Your task to perform on an android device: What's the news in Myanmar? Image 0: 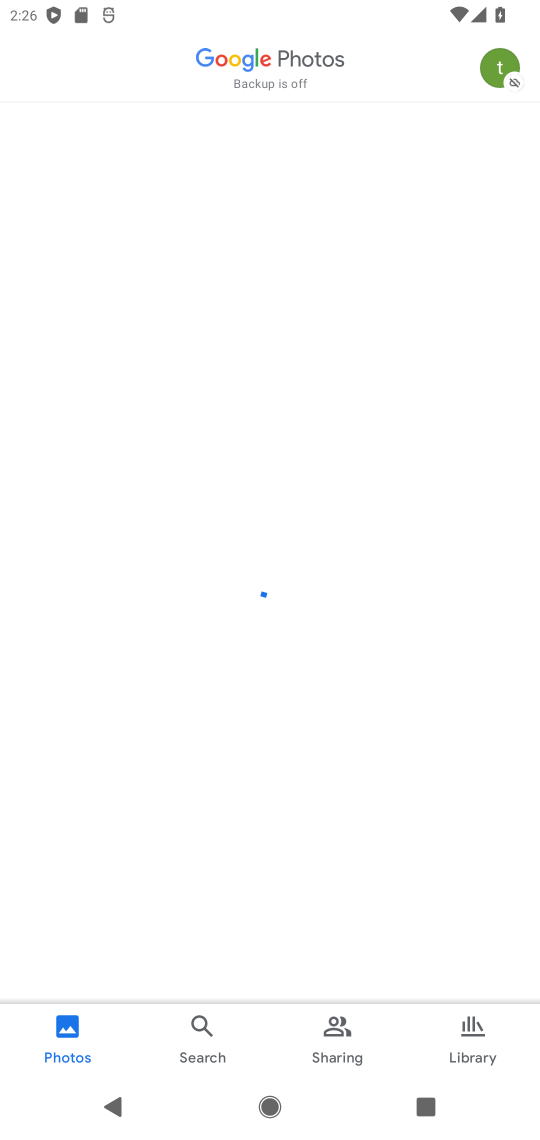
Step 0: press home button
Your task to perform on an android device: What's the news in Myanmar? Image 1: 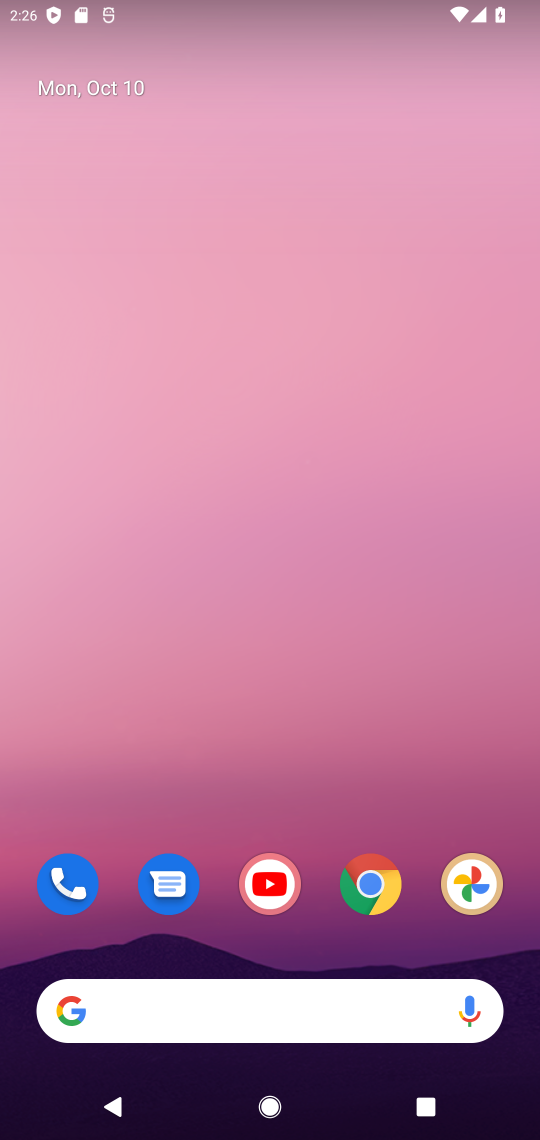
Step 1: click (322, 1021)
Your task to perform on an android device: What's the news in Myanmar? Image 2: 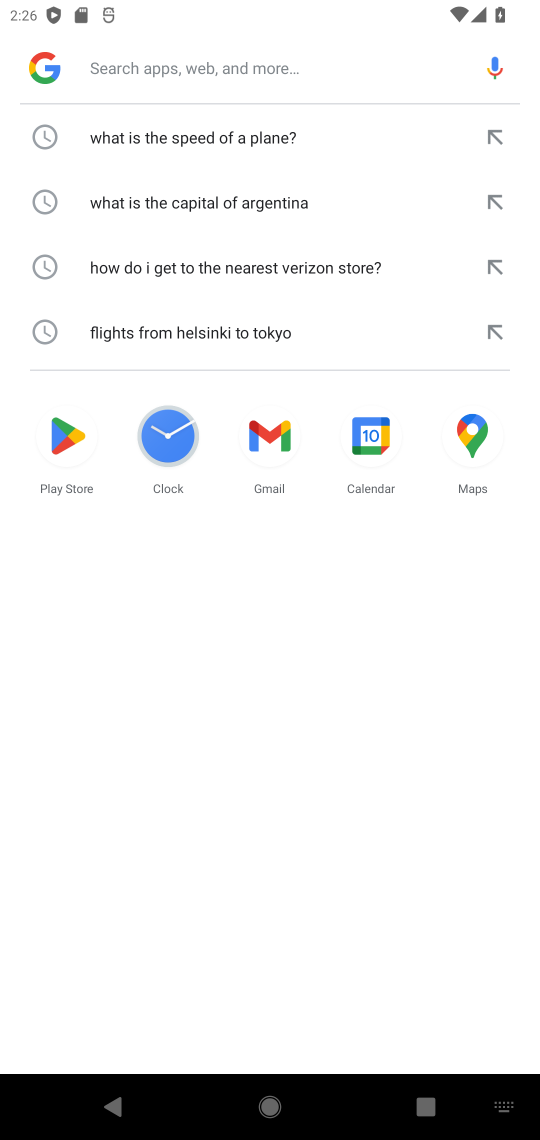
Step 2: type "What's the news in Myanmar"
Your task to perform on an android device: What's the news in Myanmar? Image 3: 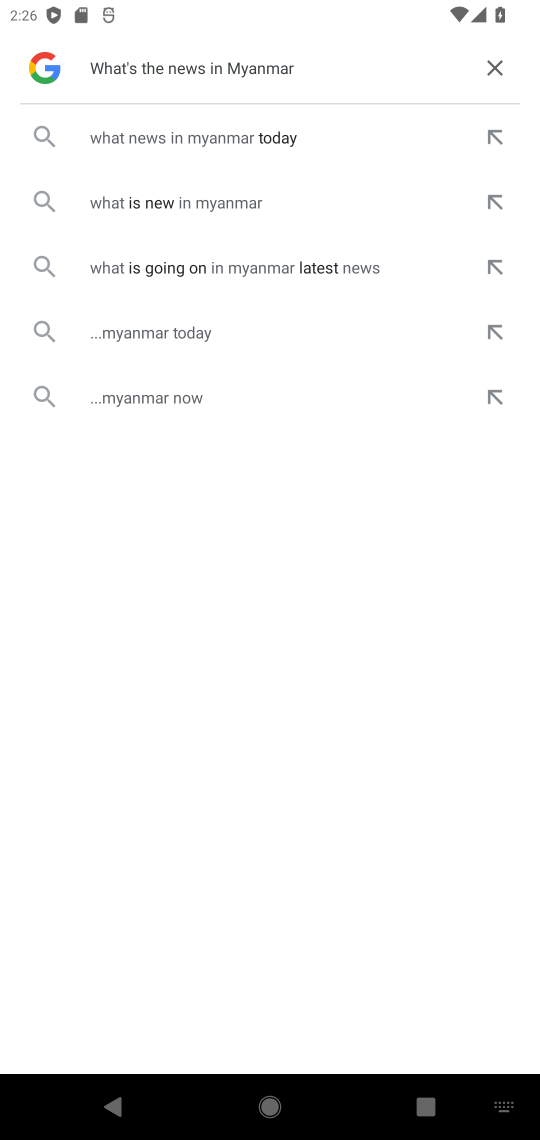
Step 3: click (175, 204)
Your task to perform on an android device: What's the news in Myanmar? Image 4: 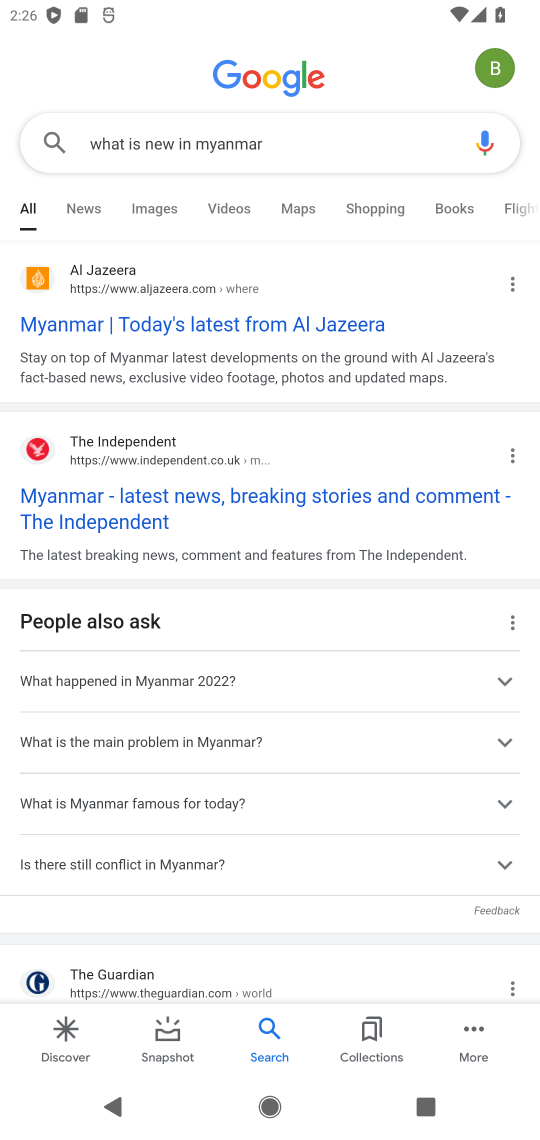
Step 4: click (225, 322)
Your task to perform on an android device: What's the news in Myanmar? Image 5: 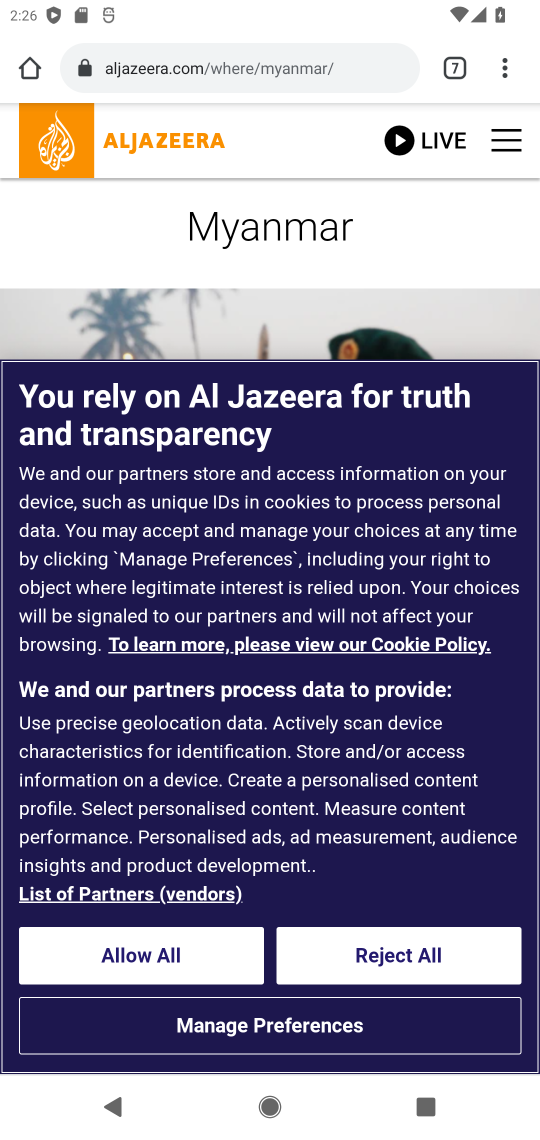
Step 5: click (372, 958)
Your task to perform on an android device: What's the news in Myanmar? Image 6: 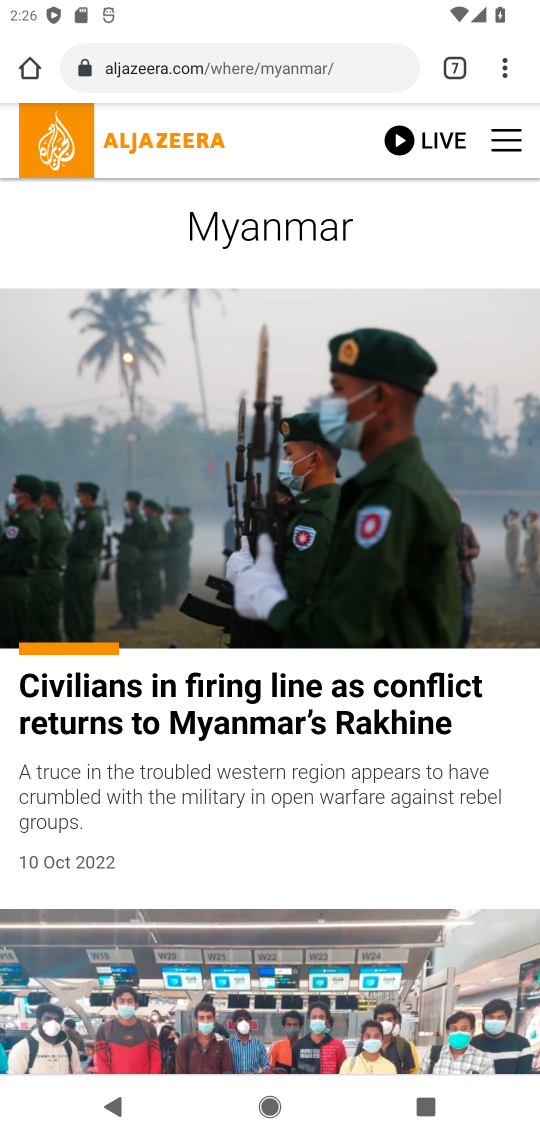
Step 6: task complete